Your task to perform on an android device: check out phone information Image 0: 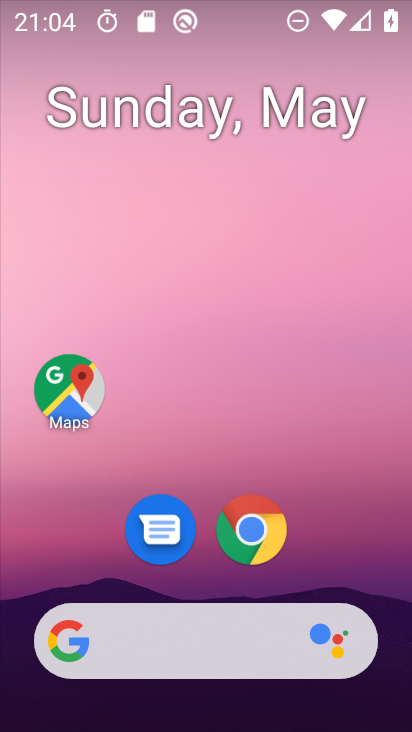
Step 0: press home button
Your task to perform on an android device: check out phone information Image 1: 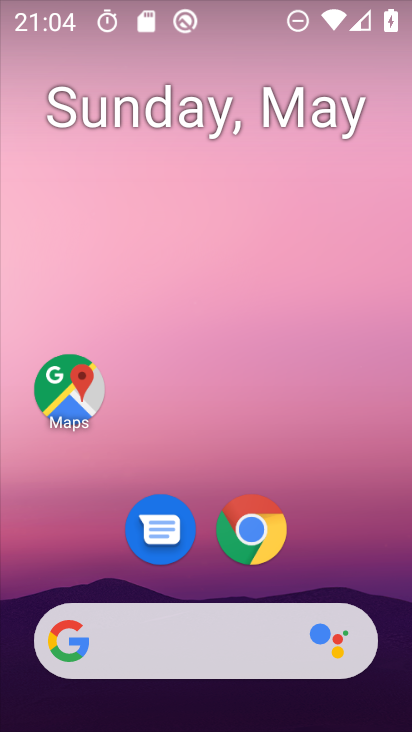
Step 1: drag from (272, 589) to (236, 158)
Your task to perform on an android device: check out phone information Image 2: 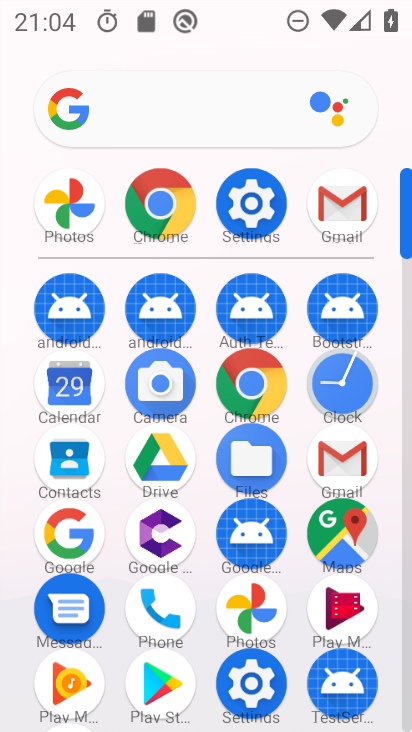
Step 2: click (269, 203)
Your task to perform on an android device: check out phone information Image 3: 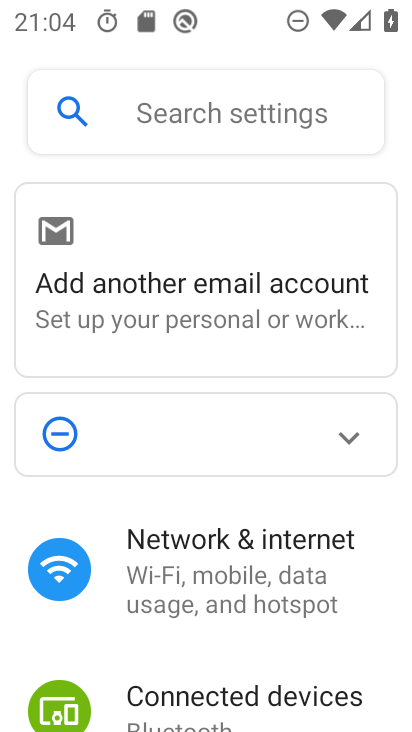
Step 3: click (229, 114)
Your task to perform on an android device: check out phone information Image 4: 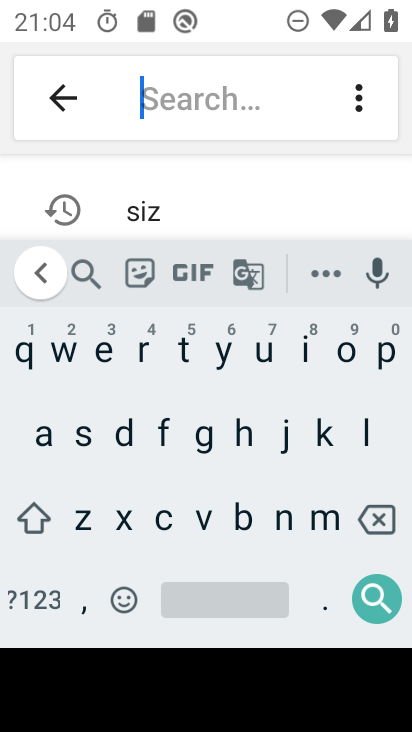
Step 4: click (45, 441)
Your task to perform on an android device: check out phone information Image 5: 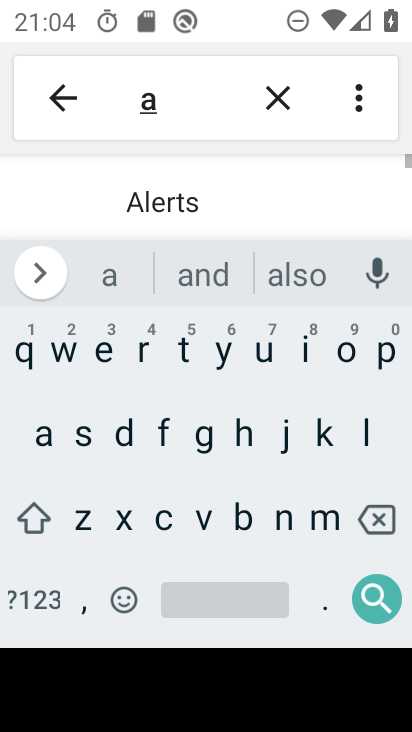
Step 5: click (238, 522)
Your task to perform on an android device: check out phone information Image 6: 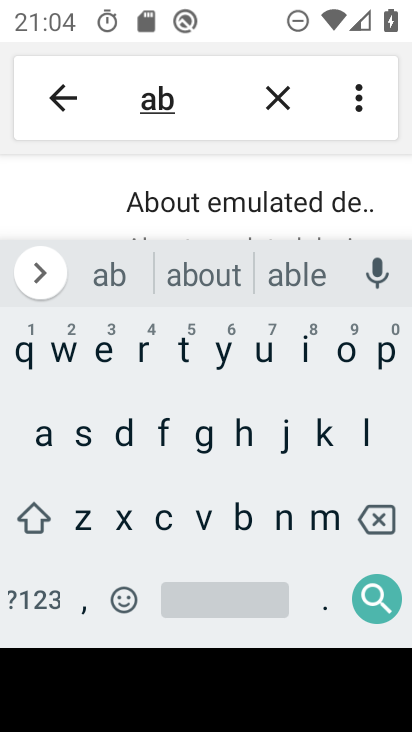
Step 6: click (245, 206)
Your task to perform on an android device: check out phone information Image 7: 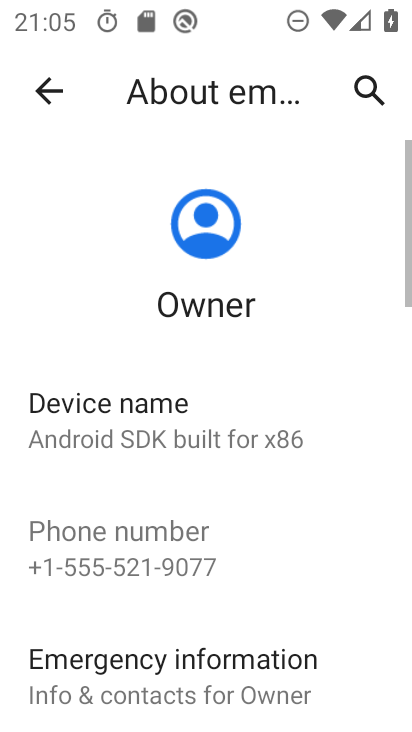
Step 7: task complete